Your task to perform on an android device: Go to CNN.com Image 0: 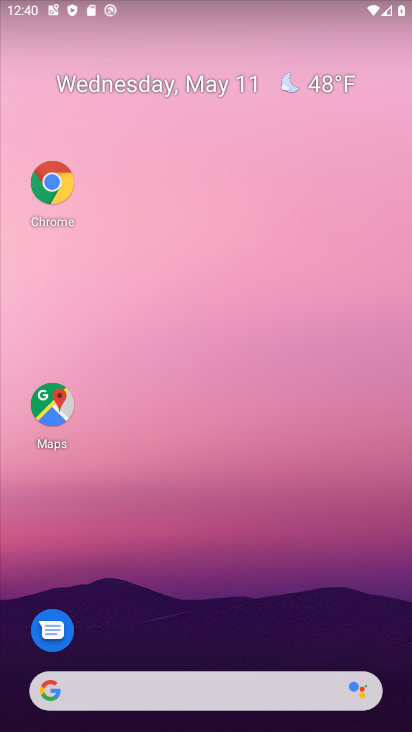
Step 0: drag from (212, 654) to (161, 0)
Your task to perform on an android device: Go to CNN.com Image 1: 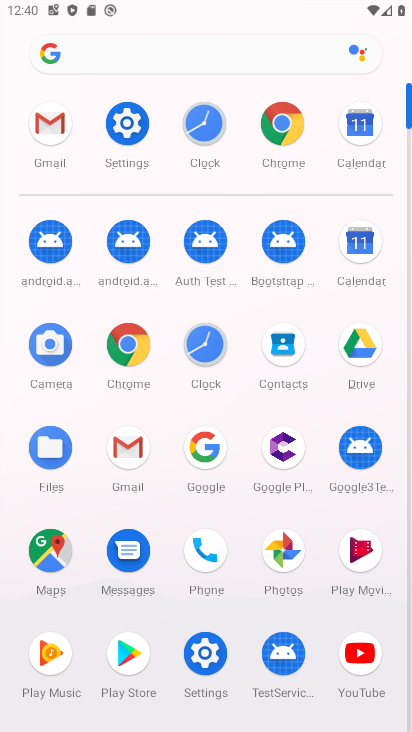
Step 1: click (264, 135)
Your task to perform on an android device: Go to CNN.com Image 2: 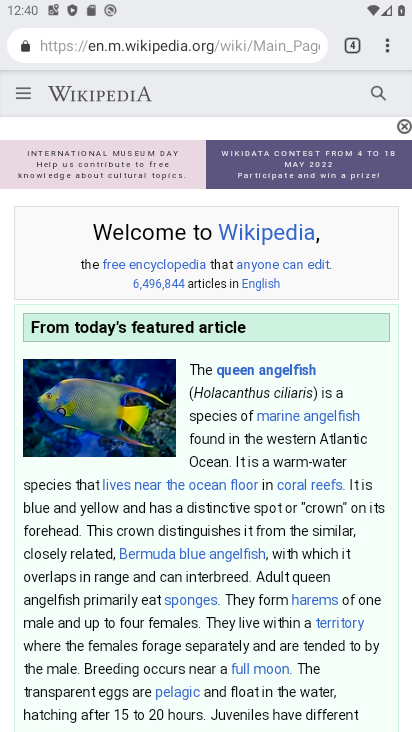
Step 2: click (358, 48)
Your task to perform on an android device: Go to CNN.com Image 3: 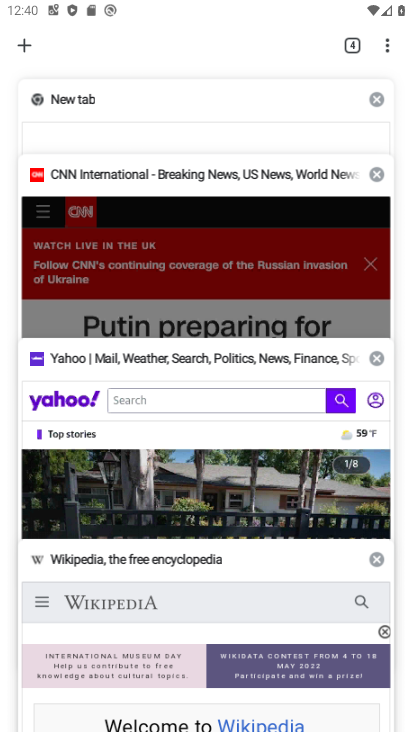
Step 3: click (126, 282)
Your task to perform on an android device: Go to CNN.com Image 4: 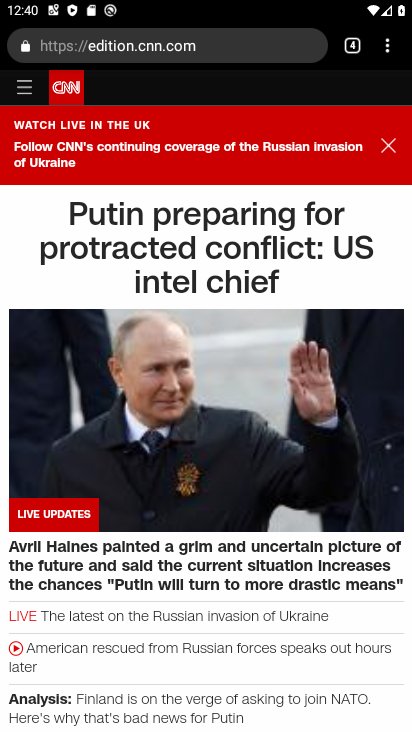
Step 4: task complete